Your task to perform on an android device: Open Google Maps Image 0: 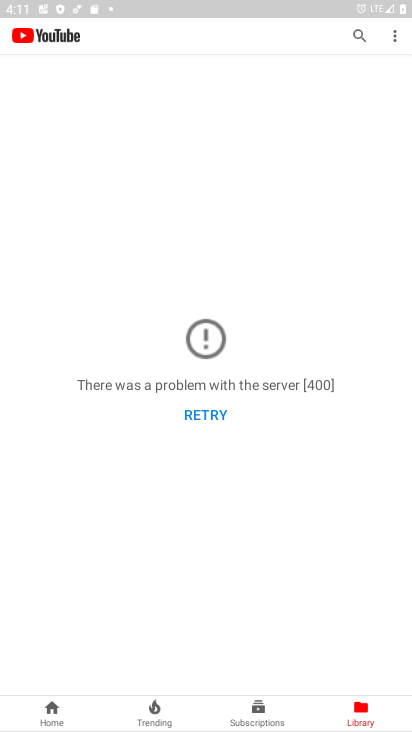
Step 0: click (260, 645)
Your task to perform on an android device: Open Google Maps Image 1: 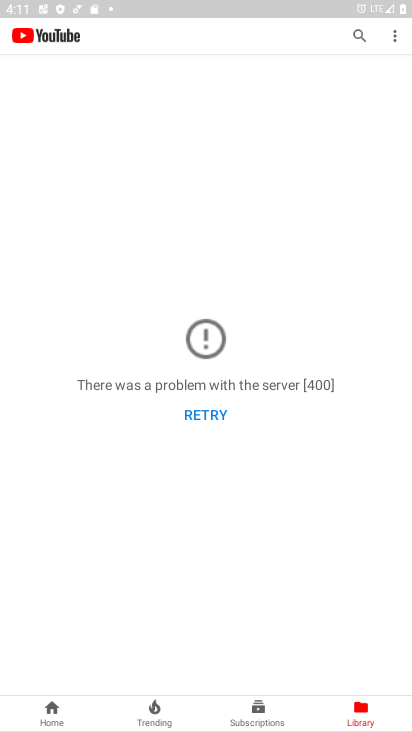
Step 1: press home button
Your task to perform on an android device: Open Google Maps Image 2: 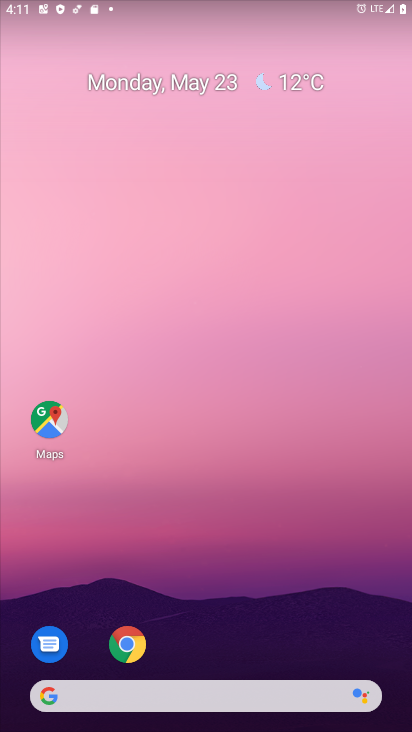
Step 2: drag from (207, 644) to (158, 208)
Your task to perform on an android device: Open Google Maps Image 3: 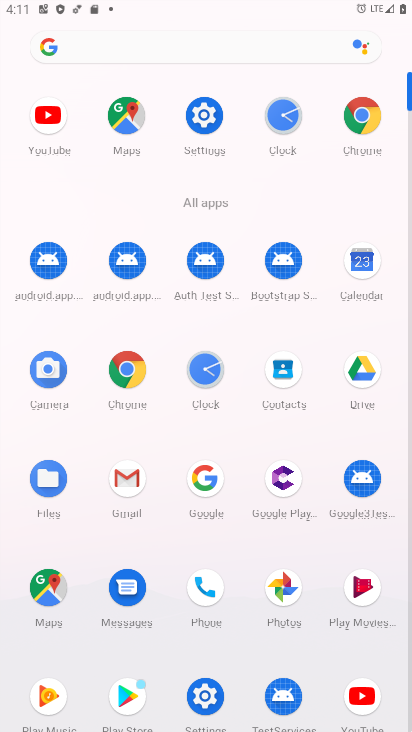
Step 3: click (126, 115)
Your task to perform on an android device: Open Google Maps Image 4: 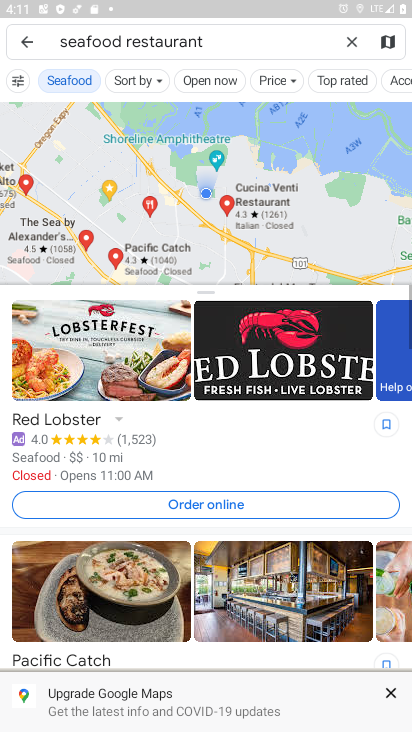
Step 4: task complete